Your task to perform on an android device: turn on location history Image 0: 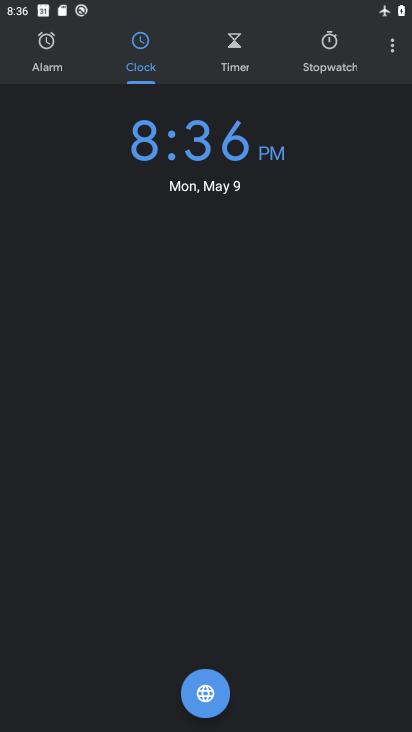
Step 0: press home button
Your task to perform on an android device: turn on location history Image 1: 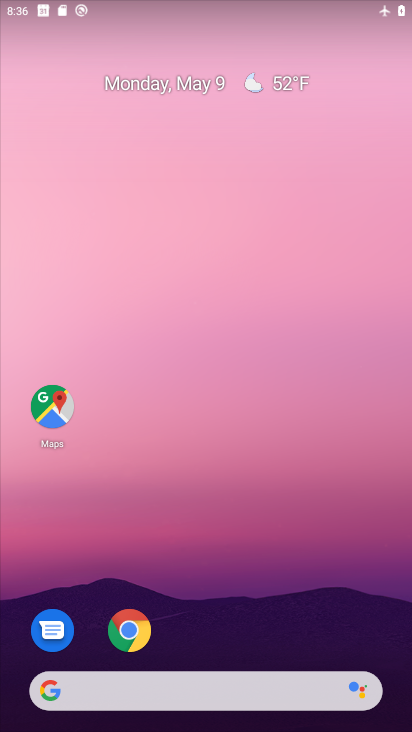
Step 1: drag from (233, 645) to (370, 84)
Your task to perform on an android device: turn on location history Image 2: 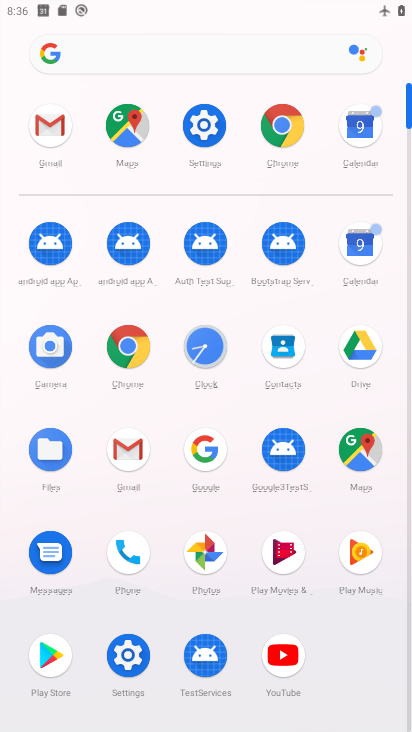
Step 2: click (128, 663)
Your task to perform on an android device: turn on location history Image 3: 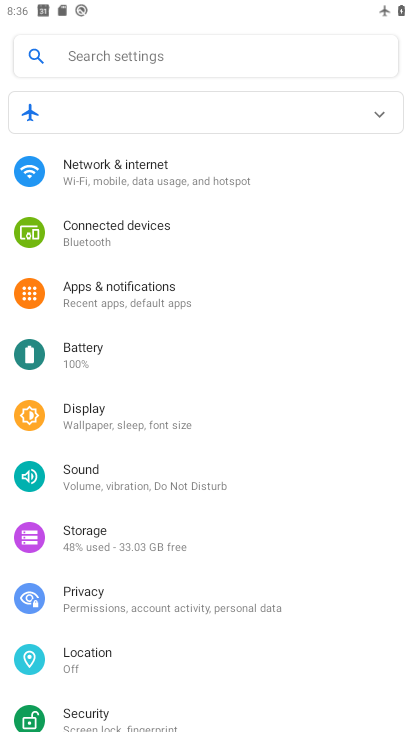
Step 3: click (92, 664)
Your task to perform on an android device: turn on location history Image 4: 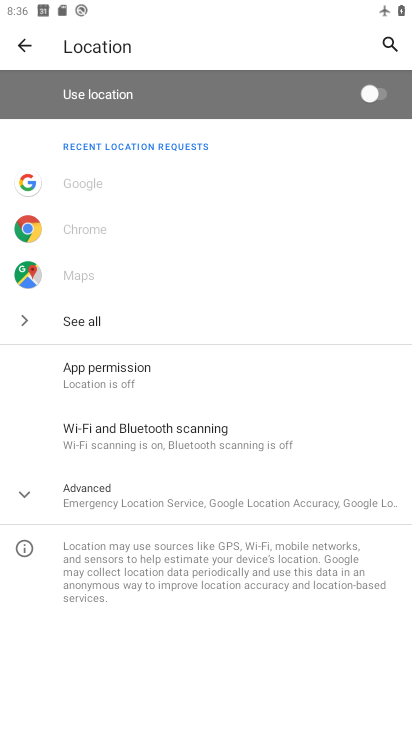
Step 4: click (113, 511)
Your task to perform on an android device: turn on location history Image 5: 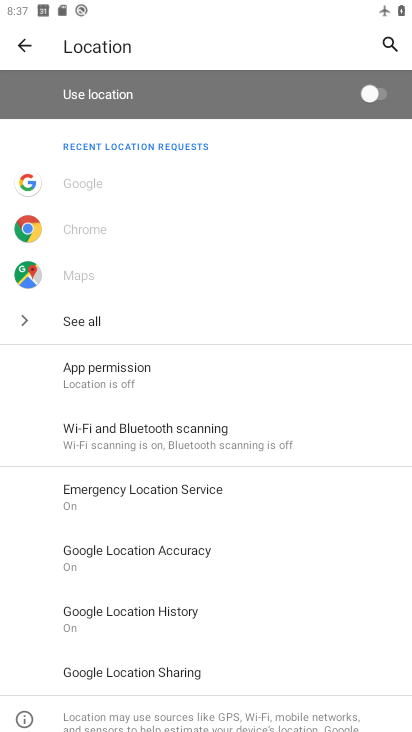
Step 5: click (173, 626)
Your task to perform on an android device: turn on location history Image 6: 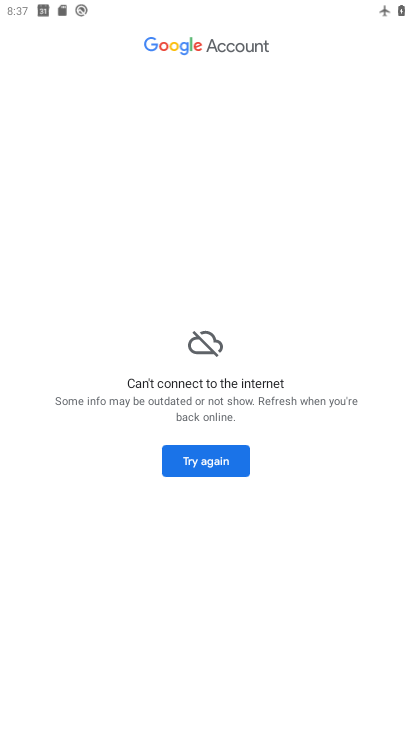
Step 6: click (226, 470)
Your task to perform on an android device: turn on location history Image 7: 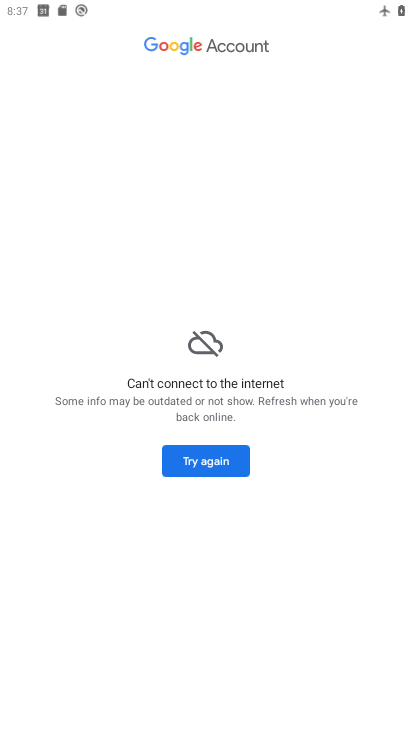
Step 7: task complete